Your task to perform on an android device: Open the web browser Image 0: 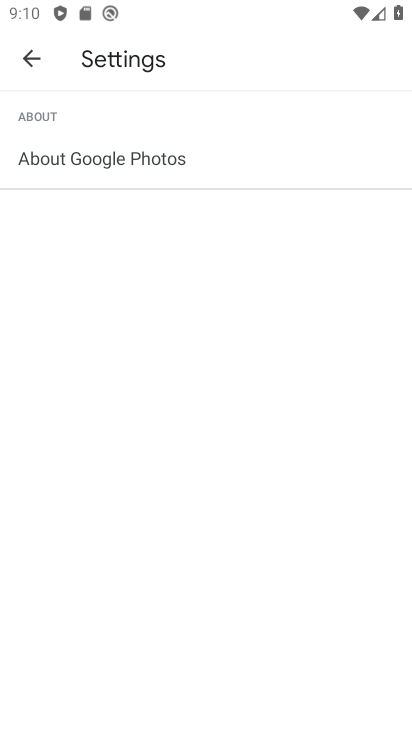
Step 0: press home button
Your task to perform on an android device: Open the web browser Image 1: 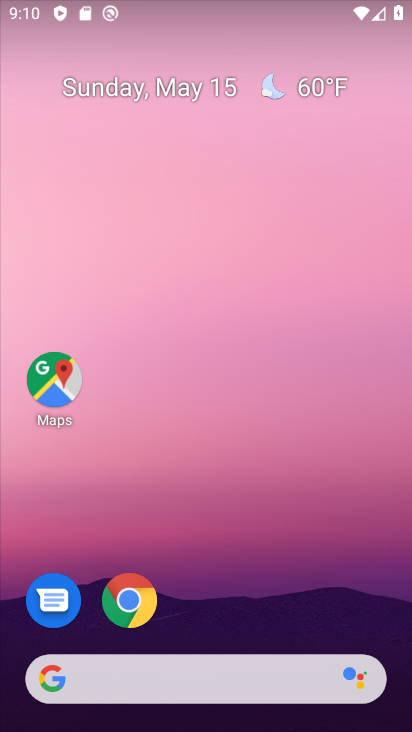
Step 1: drag from (197, 654) to (271, 101)
Your task to perform on an android device: Open the web browser Image 2: 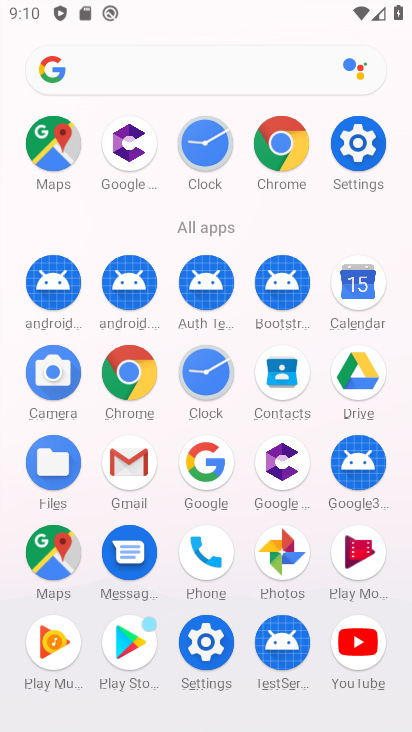
Step 2: click (196, 480)
Your task to perform on an android device: Open the web browser Image 3: 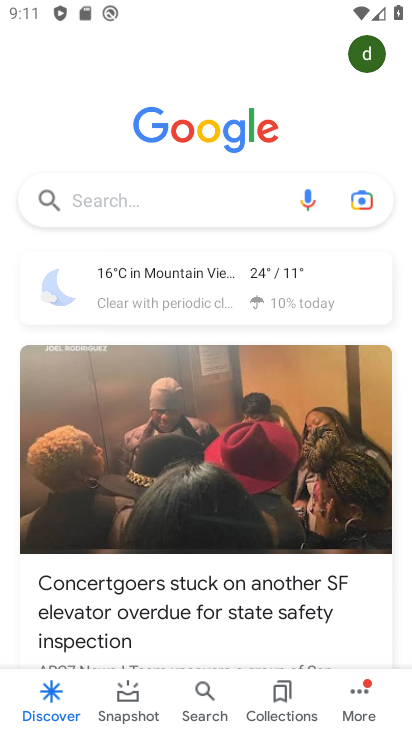
Step 3: task complete